Your task to perform on an android device: remove spam from my inbox in the gmail app Image 0: 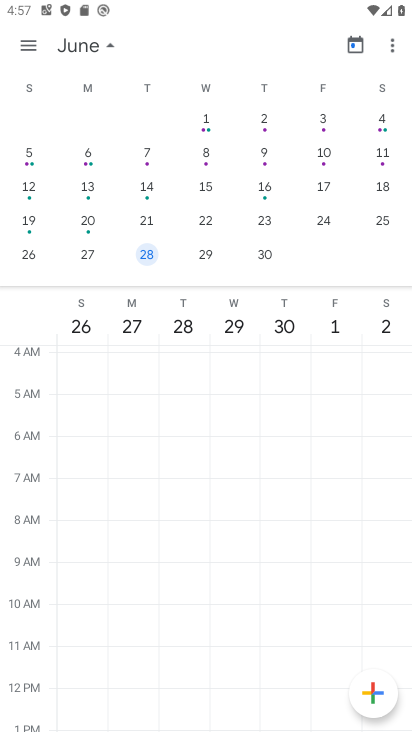
Step 0: press home button
Your task to perform on an android device: remove spam from my inbox in the gmail app Image 1: 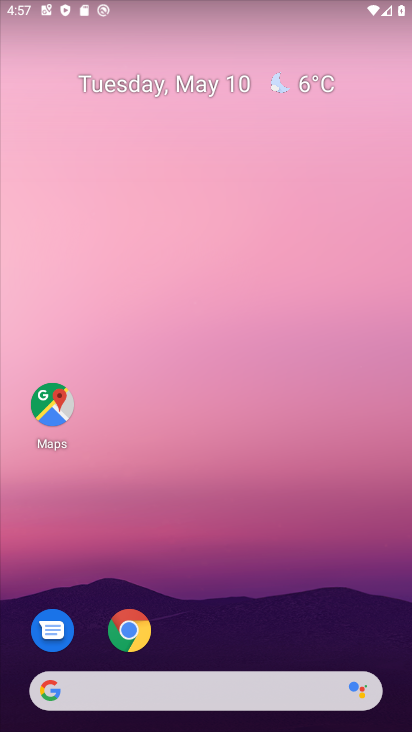
Step 1: drag from (259, 545) to (236, 149)
Your task to perform on an android device: remove spam from my inbox in the gmail app Image 2: 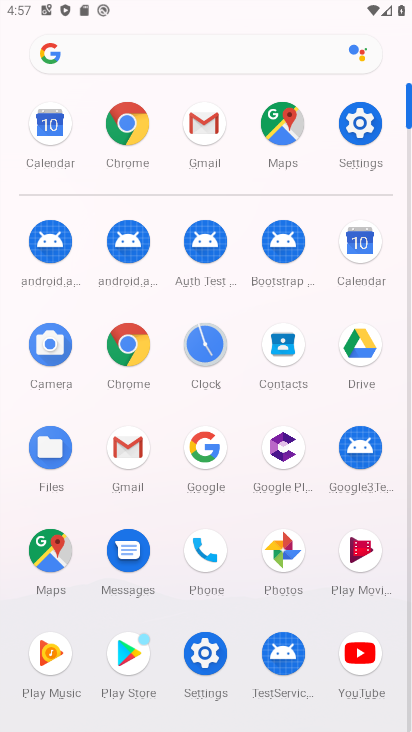
Step 2: click (132, 456)
Your task to perform on an android device: remove spam from my inbox in the gmail app Image 3: 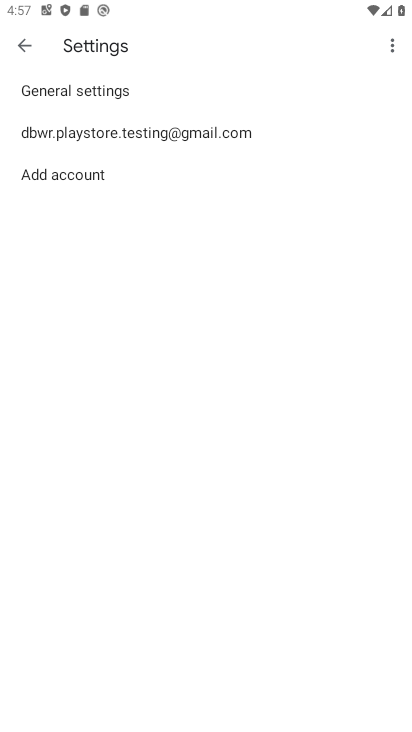
Step 3: click (149, 142)
Your task to perform on an android device: remove spam from my inbox in the gmail app Image 4: 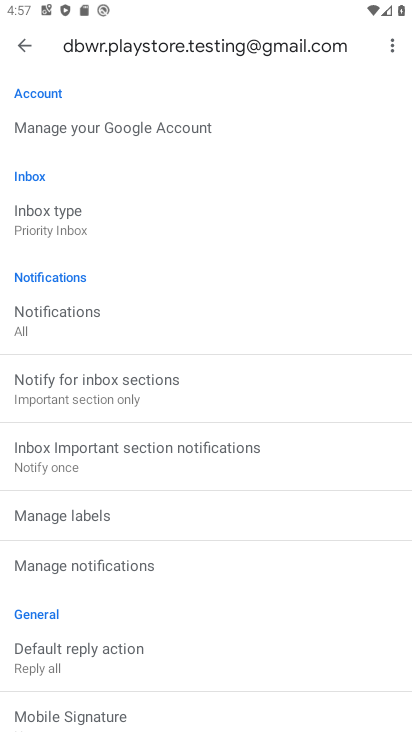
Step 4: click (22, 47)
Your task to perform on an android device: remove spam from my inbox in the gmail app Image 5: 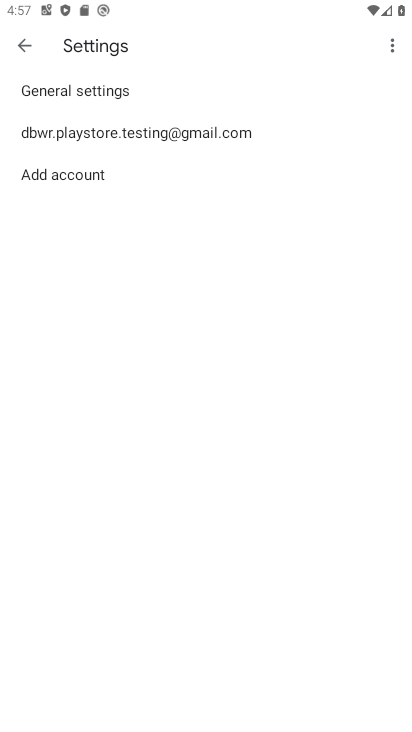
Step 5: click (22, 47)
Your task to perform on an android device: remove spam from my inbox in the gmail app Image 6: 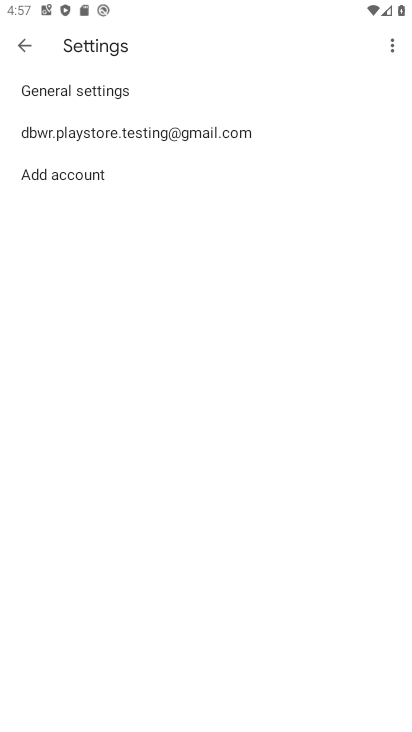
Step 6: click (16, 45)
Your task to perform on an android device: remove spam from my inbox in the gmail app Image 7: 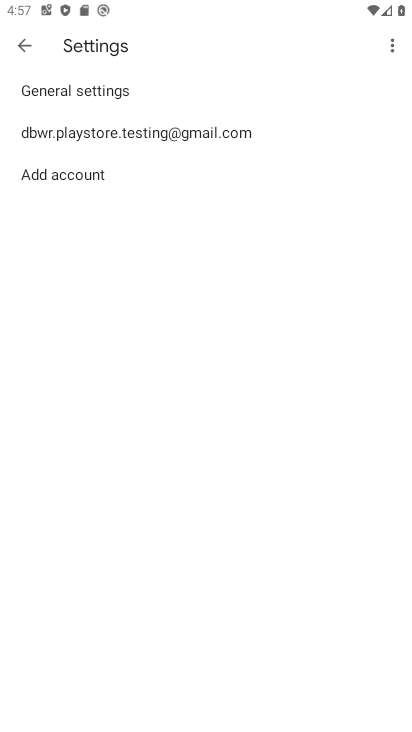
Step 7: click (23, 48)
Your task to perform on an android device: remove spam from my inbox in the gmail app Image 8: 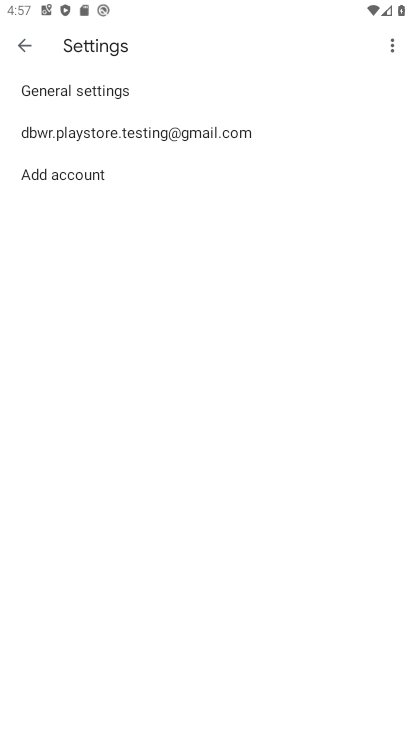
Step 8: click (23, 48)
Your task to perform on an android device: remove spam from my inbox in the gmail app Image 9: 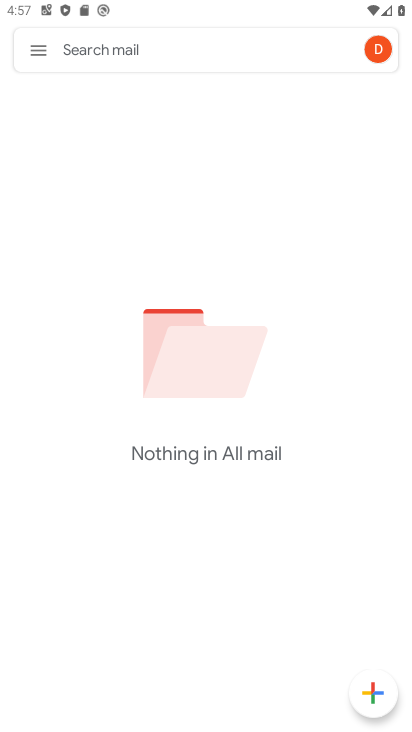
Step 9: click (29, 47)
Your task to perform on an android device: remove spam from my inbox in the gmail app Image 10: 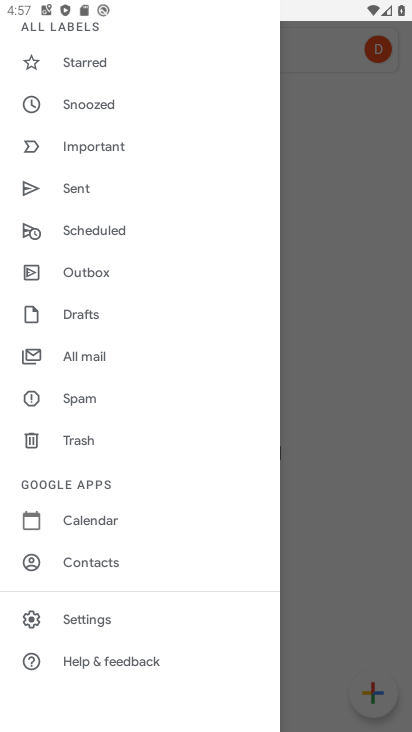
Step 10: drag from (133, 192) to (115, 652)
Your task to perform on an android device: remove spam from my inbox in the gmail app Image 11: 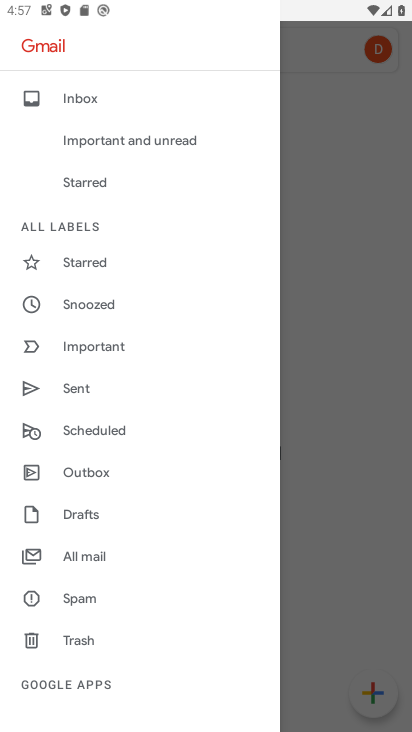
Step 11: click (78, 93)
Your task to perform on an android device: remove spam from my inbox in the gmail app Image 12: 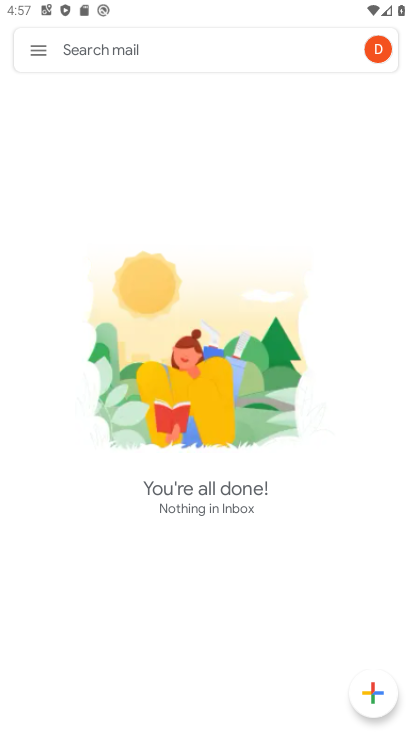
Step 12: task complete